Your task to perform on an android device: delete a single message in the gmail app Image 0: 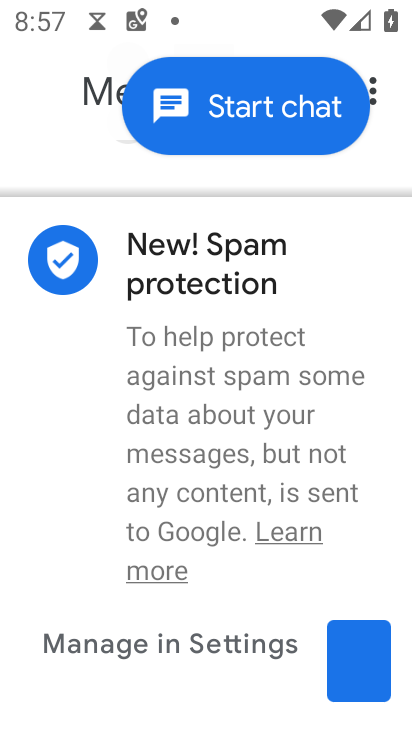
Step 0: press home button
Your task to perform on an android device: delete a single message in the gmail app Image 1: 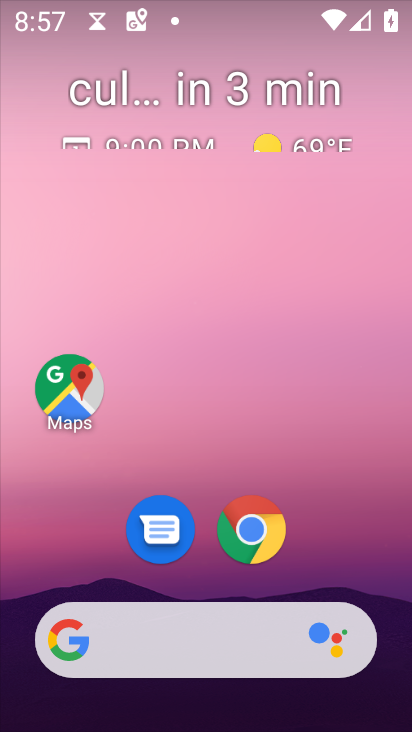
Step 1: drag from (341, 508) to (345, 17)
Your task to perform on an android device: delete a single message in the gmail app Image 2: 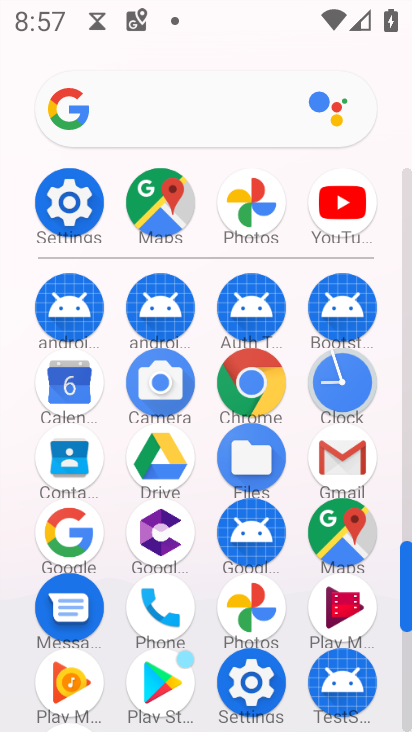
Step 2: click (338, 465)
Your task to perform on an android device: delete a single message in the gmail app Image 3: 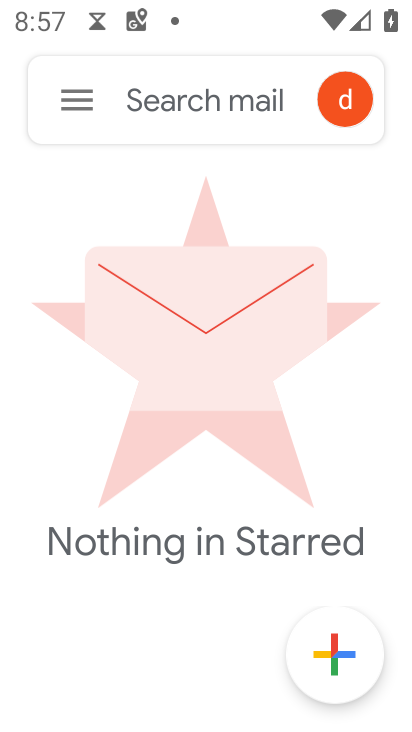
Step 3: click (71, 92)
Your task to perform on an android device: delete a single message in the gmail app Image 4: 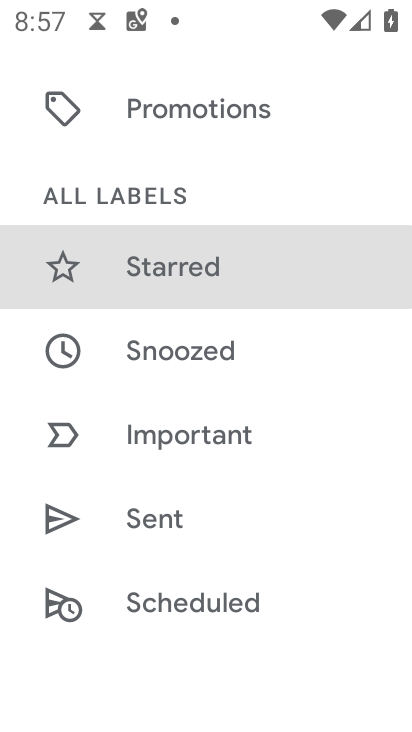
Step 4: drag from (283, 555) to (309, 59)
Your task to perform on an android device: delete a single message in the gmail app Image 5: 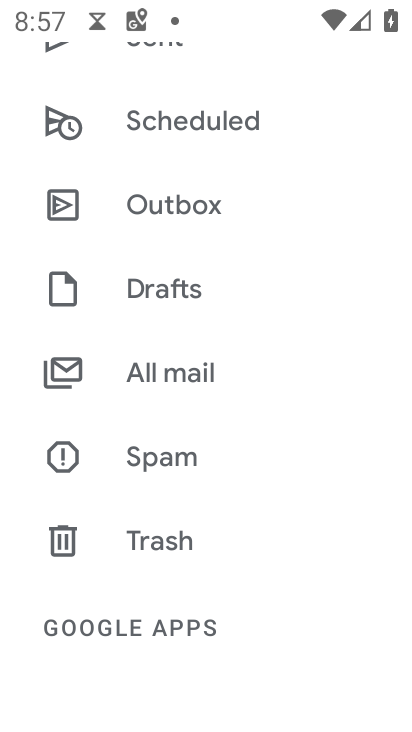
Step 5: click (276, 390)
Your task to perform on an android device: delete a single message in the gmail app Image 6: 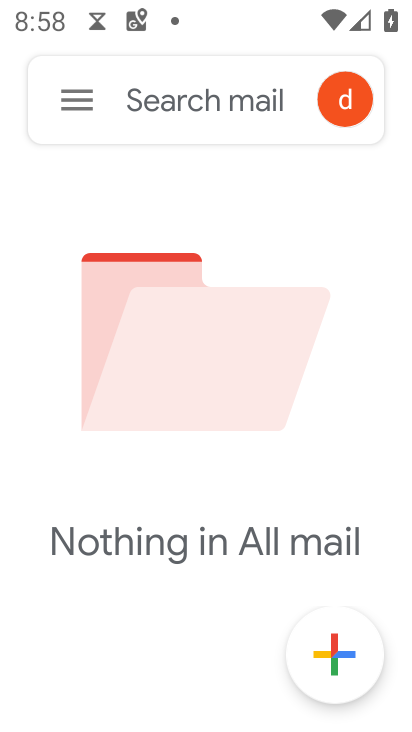
Step 6: task complete